Your task to perform on an android device: change the upload size in google photos Image 0: 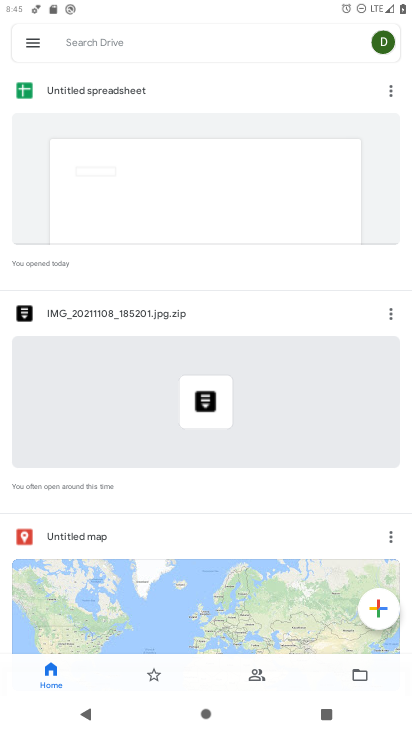
Step 0: press home button
Your task to perform on an android device: change the upload size in google photos Image 1: 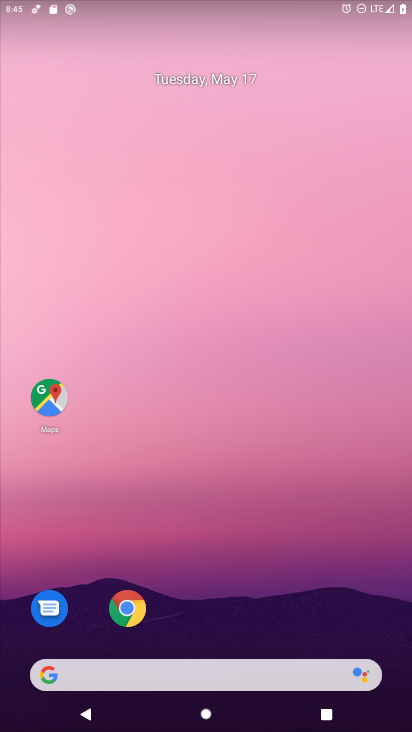
Step 1: drag from (200, 618) to (239, 116)
Your task to perform on an android device: change the upload size in google photos Image 2: 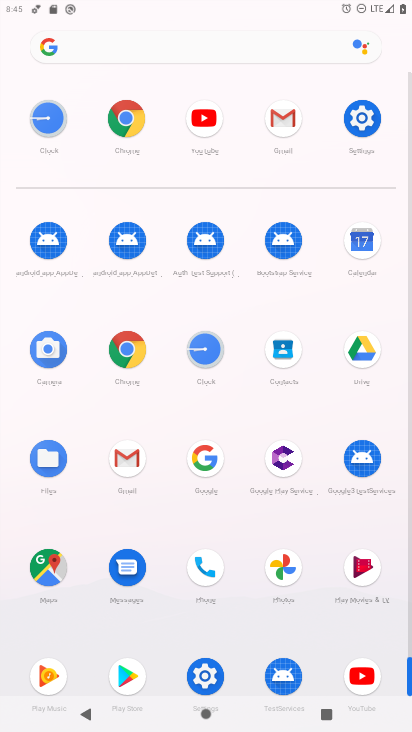
Step 2: click (274, 567)
Your task to perform on an android device: change the upload size in google photos Image 3: 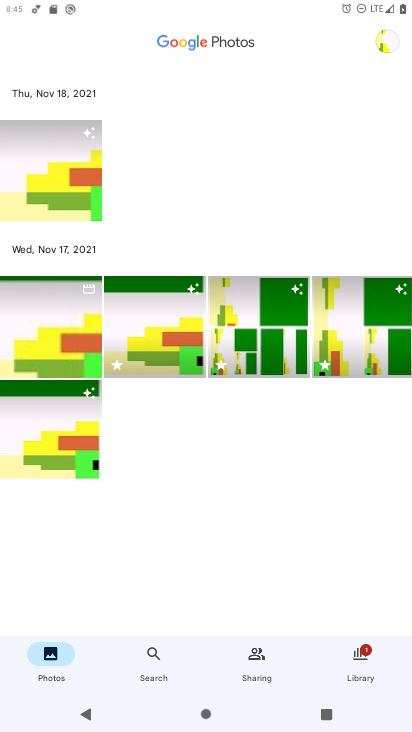
Step 3: click (352, 662)
Your task to perform on an android device: change the upload size in google photos Image 4: 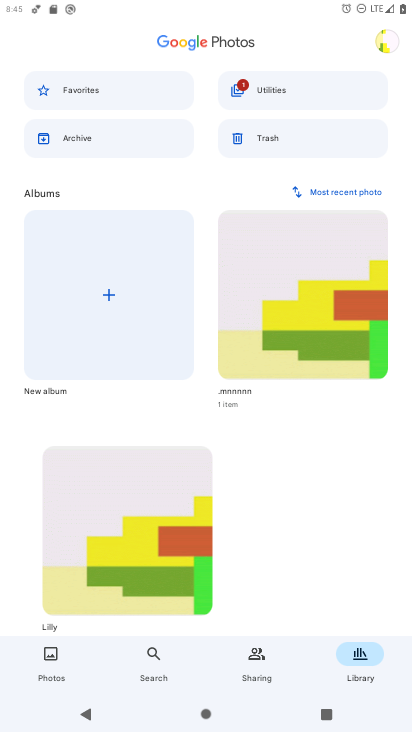
Step 4: click (387, 37)
Your task to perform on an android device: change the upload size in google photos Image 5: 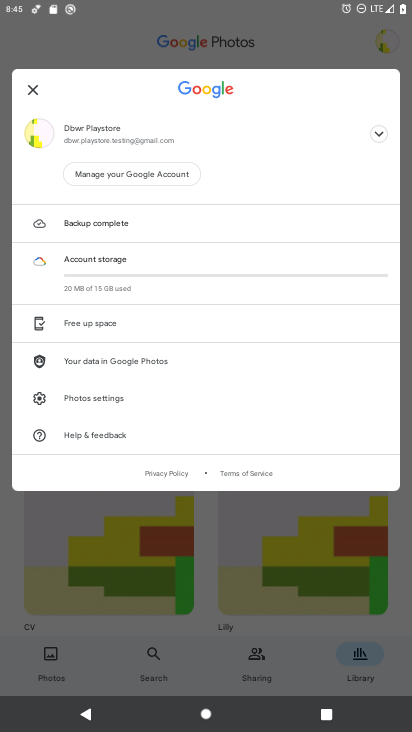
Step 5: click (112, 398)
Your task to perform on an android device: change the upload size in google photos Image 6: 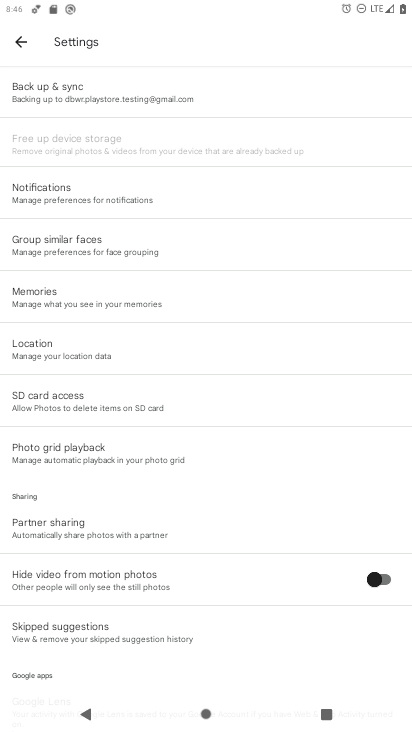
Step 6: click (115, 98)
Your task to perform on an android device: change the upload size in google photos Image 7: 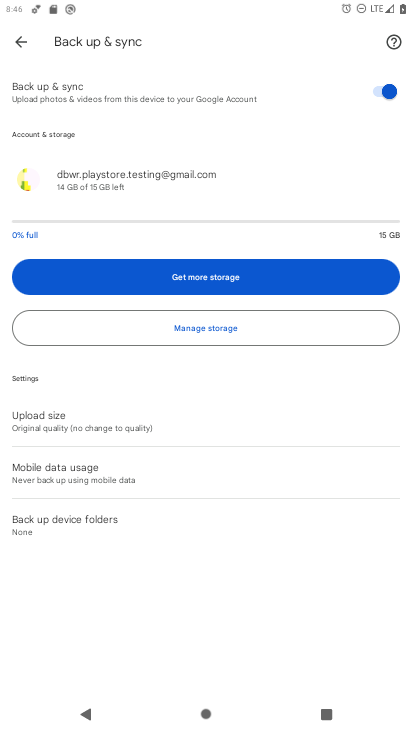
Step 7: click (106, 419)
Your task to perform on an android device: change the upload size in google photos Image 8: 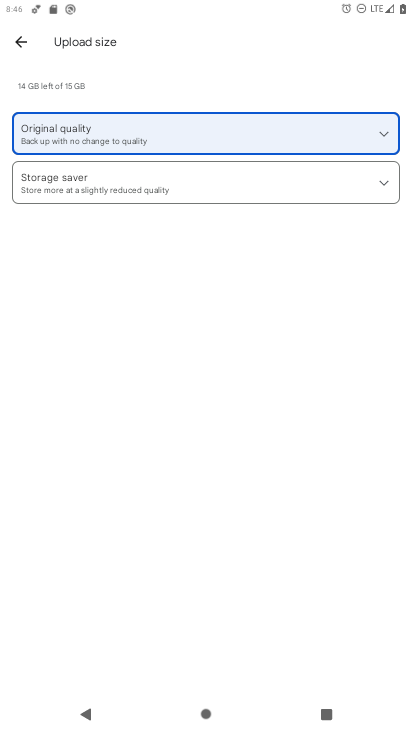
Step 8: click (83, 190)
Your task to perform on an android device: change the upload size in google photos Image 9: 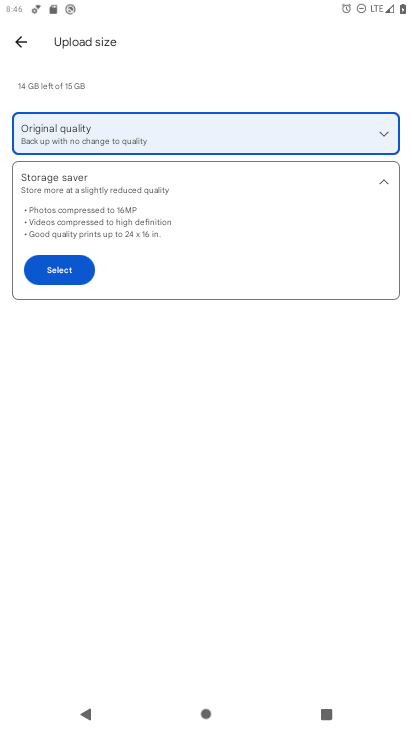
Step 9: click (66, 273)
Your task to perform on an android device: change the upload size in google photos Image 10: 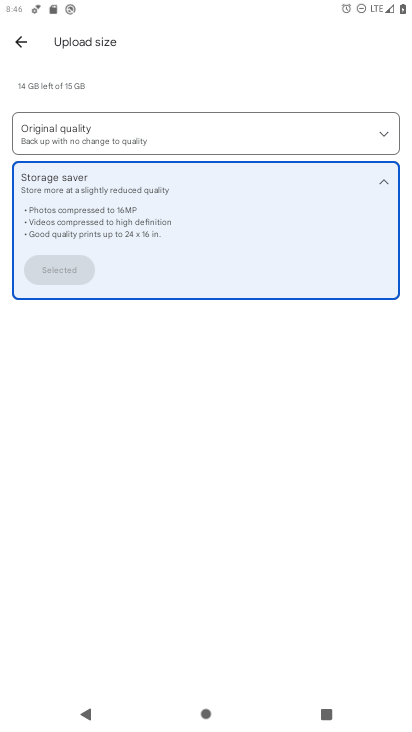
Step 10: task complete